Your task to perform on an android device: check data usage Image 0: 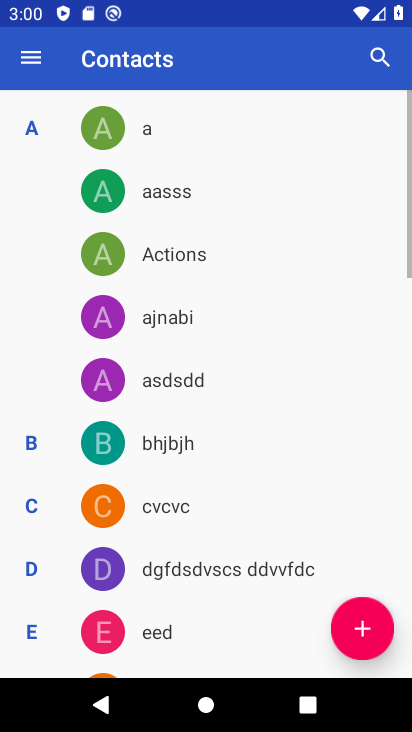
Step 0: press home button
Your task to perform on an android device: check data usage Image 1: 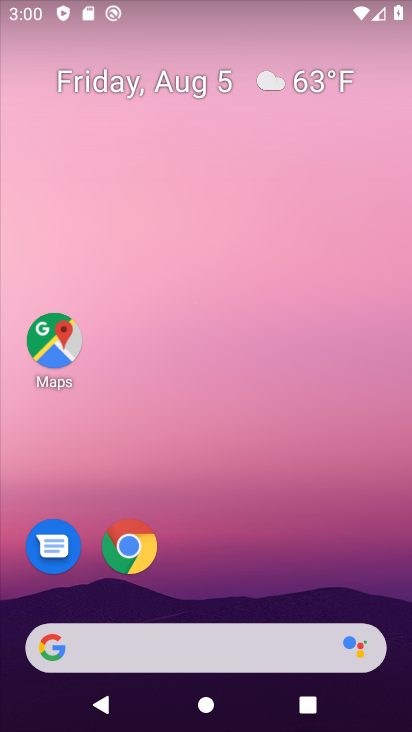
Step 1: drag from (318, 550) to (332, 63)
Your task to perform on an android device: check data usage Image 2: 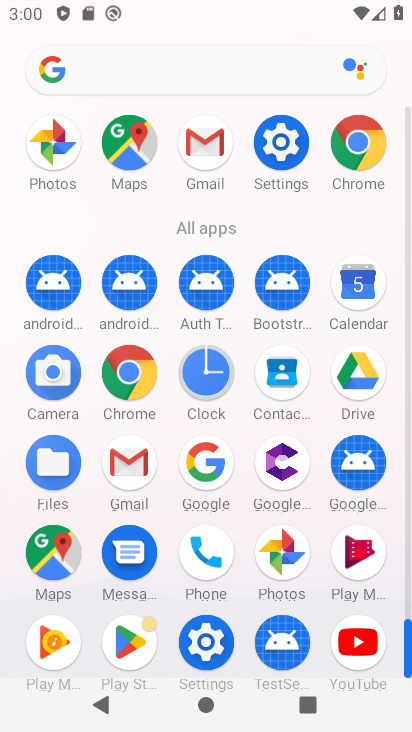
Step 2: click (284, 150)
Your task to perform on an android device: check data usage Image 3: 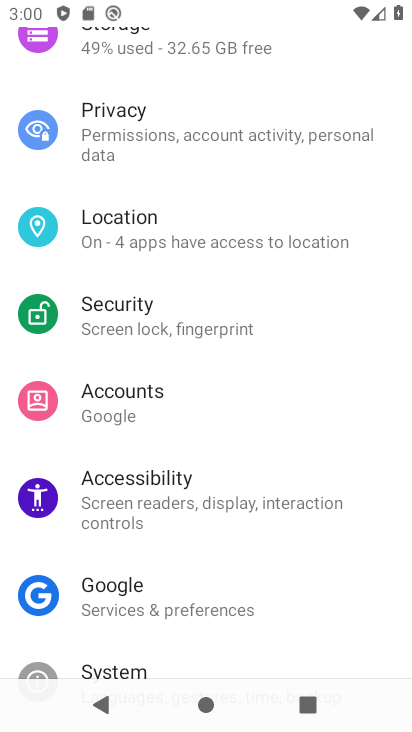
Step 3: drag from (358, 533) to (356, 441)
Your task to perform on an android device: check data usage Image 4: 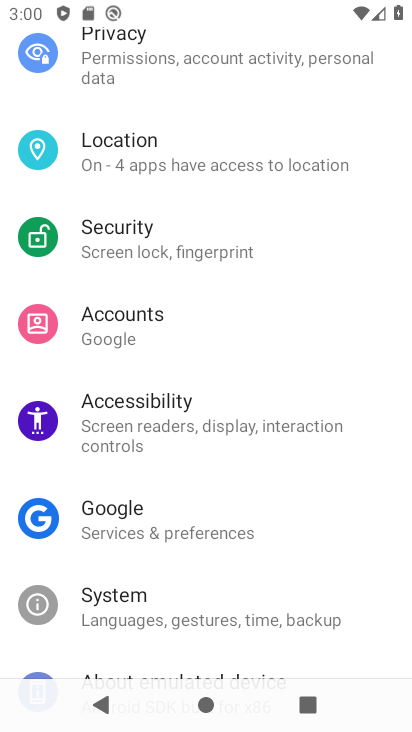
Step 4: drag from (356, 531) to (344, 382)
Your task to perform on an android device: check data usage Image 5: 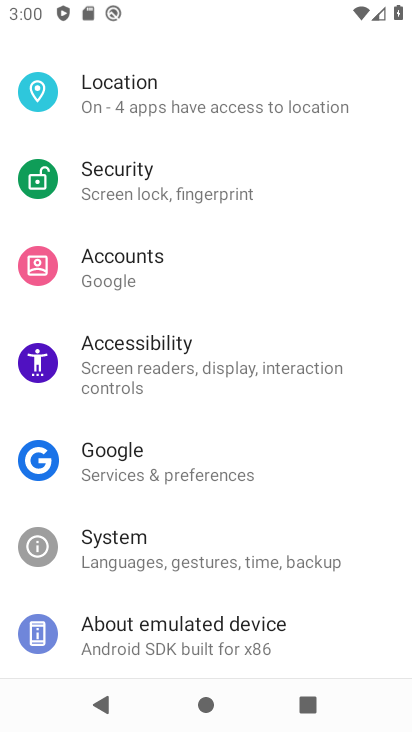
Step 5: drag from (336, 439) to (331, 365)
Your task to perform on an android device: check data usage Image 6: 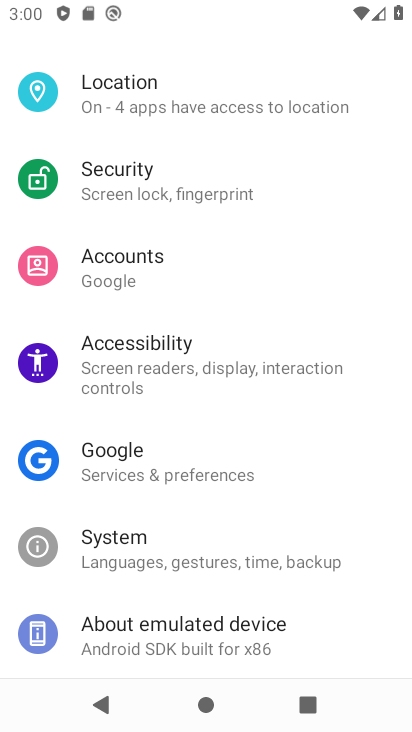
Step 6: drag from (340, 563) to (344, 370)
Your task to perform on an android device: check data usage Image 7: 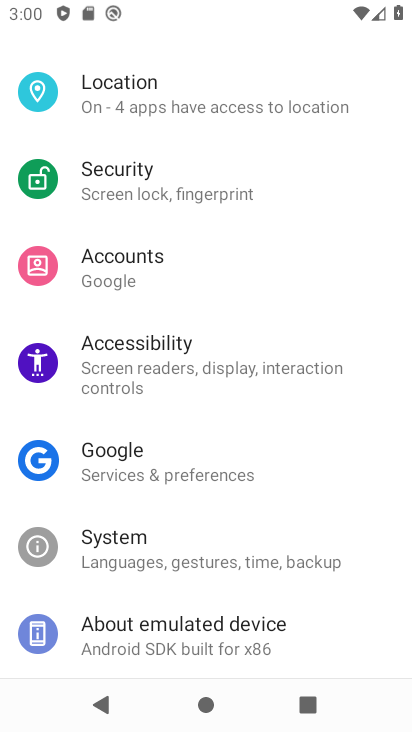
Step 7: drag from (341, 287) to (341, 498)
Your task to perform on an android device: check data usage Image 8: 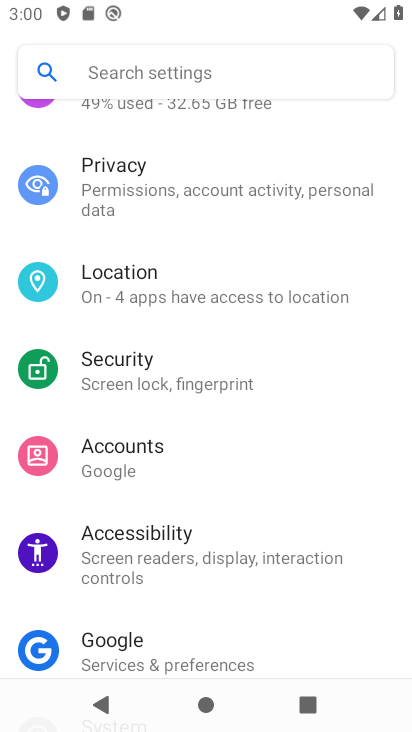
Step 8: drag from (367, 268) to (357, 457)
Your task to perform on an android device: check data usage Image 9: 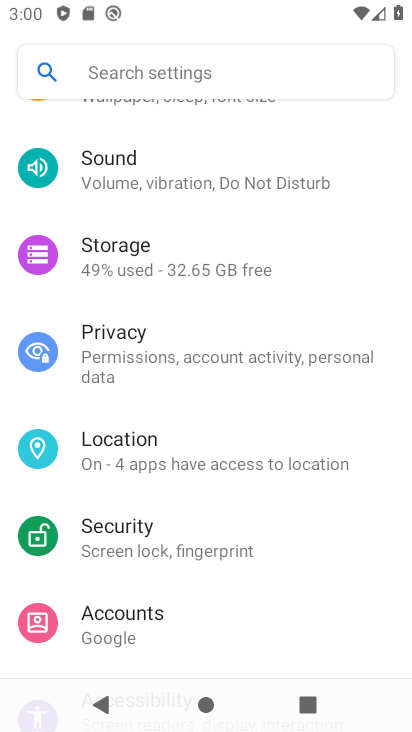
Step 9: drag from (362, 255) to (351, 483)
Your task to perform on an android device: check data usage Image 10: 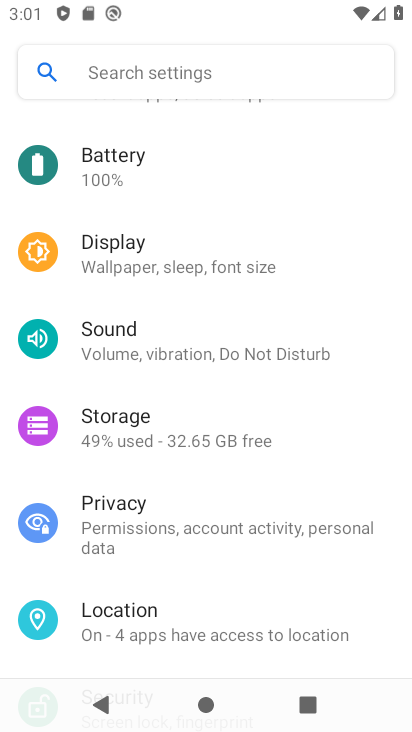
Step 10: drag from (338, 206) to (361, 387)
Your task to perform on an android device: check data usage Image 11: 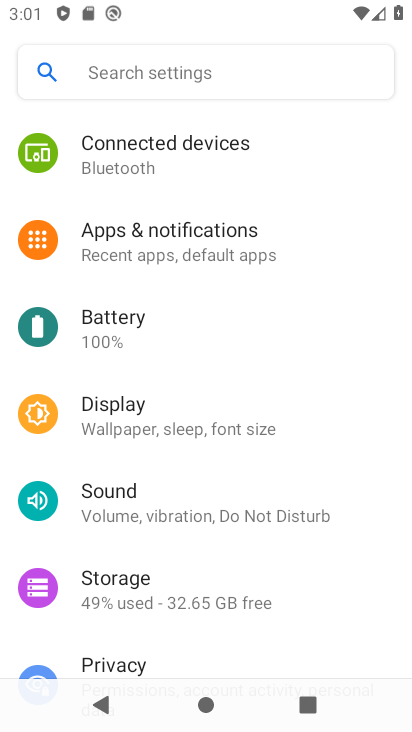
Step 11: drag from (338, 182) to (342, 395)
Your task to perform on an android device: check data usage Image 12: 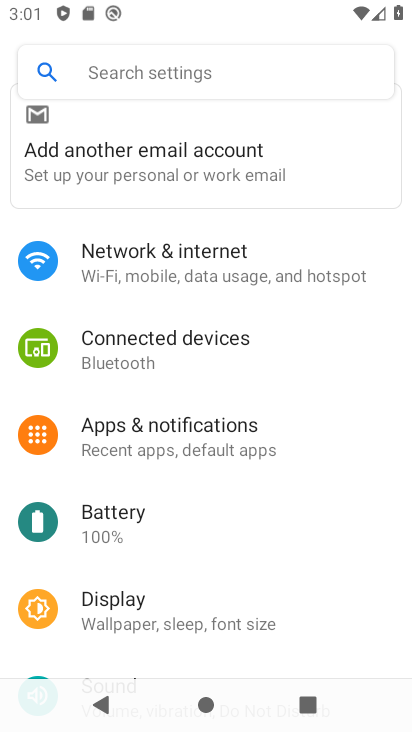
Step 12: click (268, 280)
Your task to perform on an android device: check data usage Image 13: 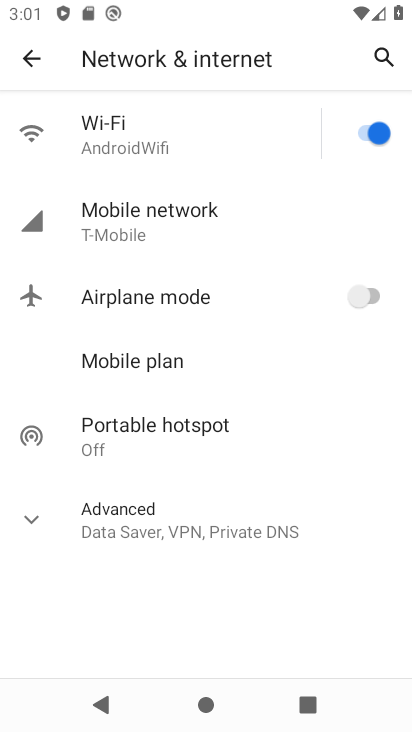
Step 13: click (161, 230)
Your task to perform on an android device: check data usage Image 14: 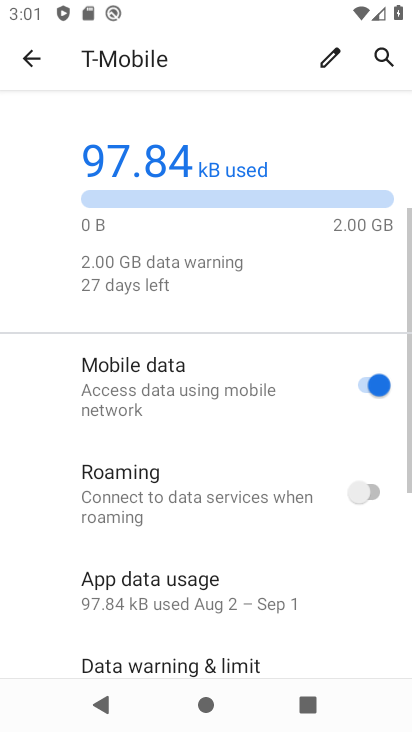
Step 14: drag from (272, 485) to (271, 248)
Your task to perform on an android device: check data usage Image 15: 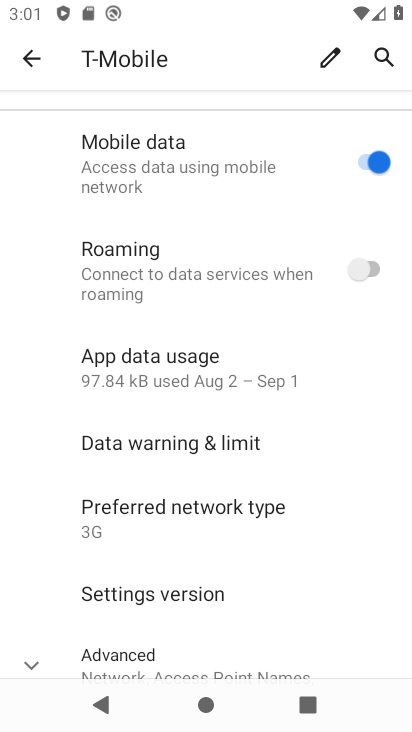
Step 15: click (205, 363)
Your task to perform on an android device: check data usage Image 16: 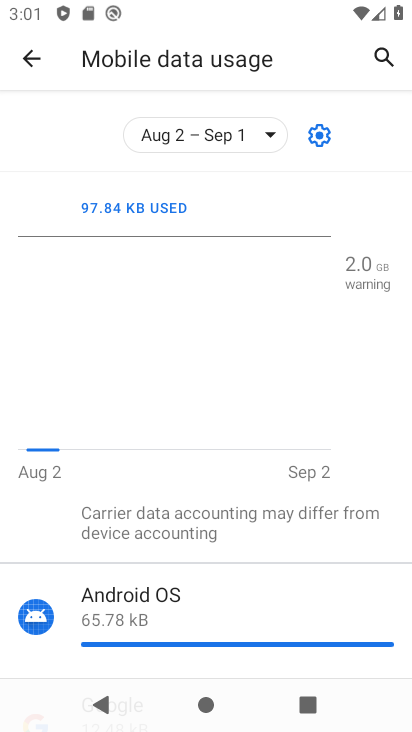
Step 16: task complete